Your task to perform on an android device: Look up the book "The Girl on the Train". Image 0: 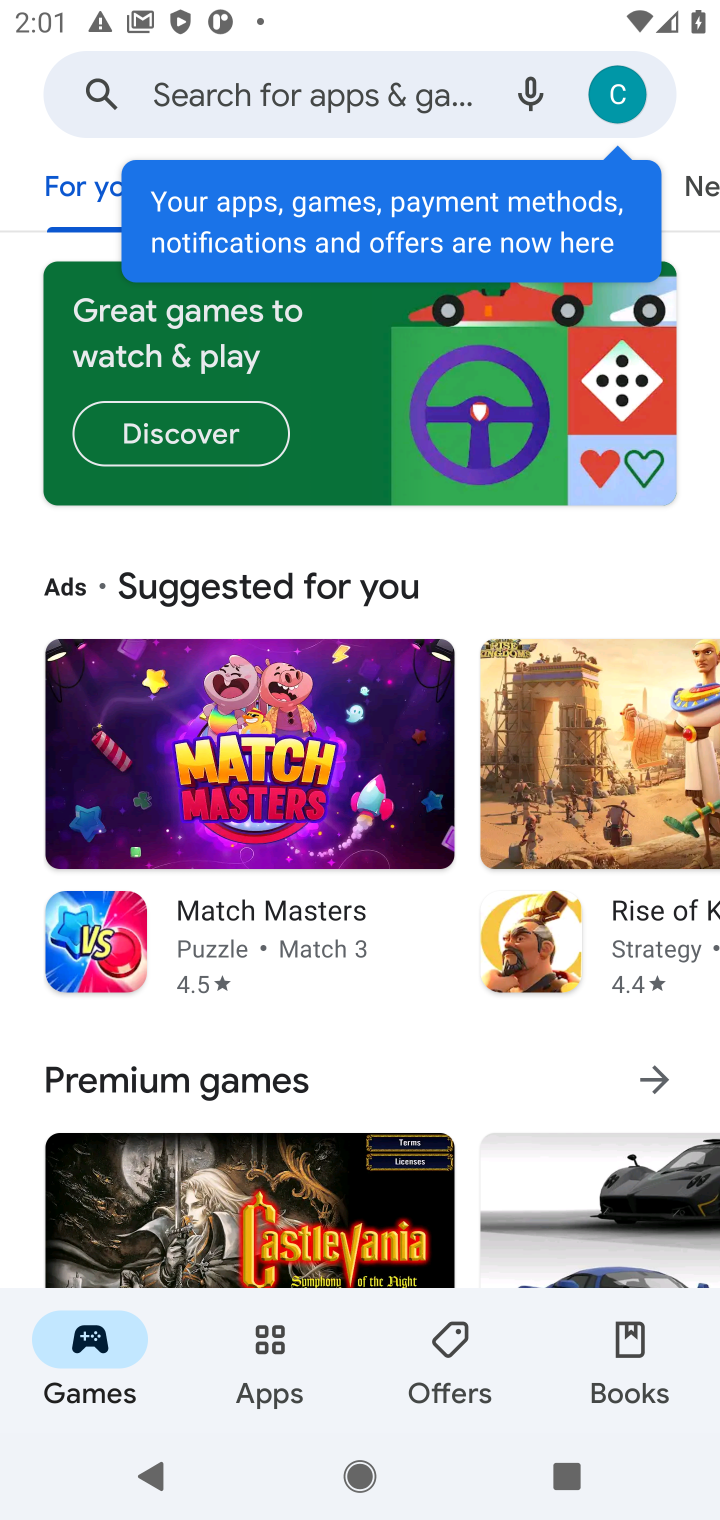
Step 0: press home button
Your task to perform on an android device: Look up the book "The Girl on the Train". Image 1: 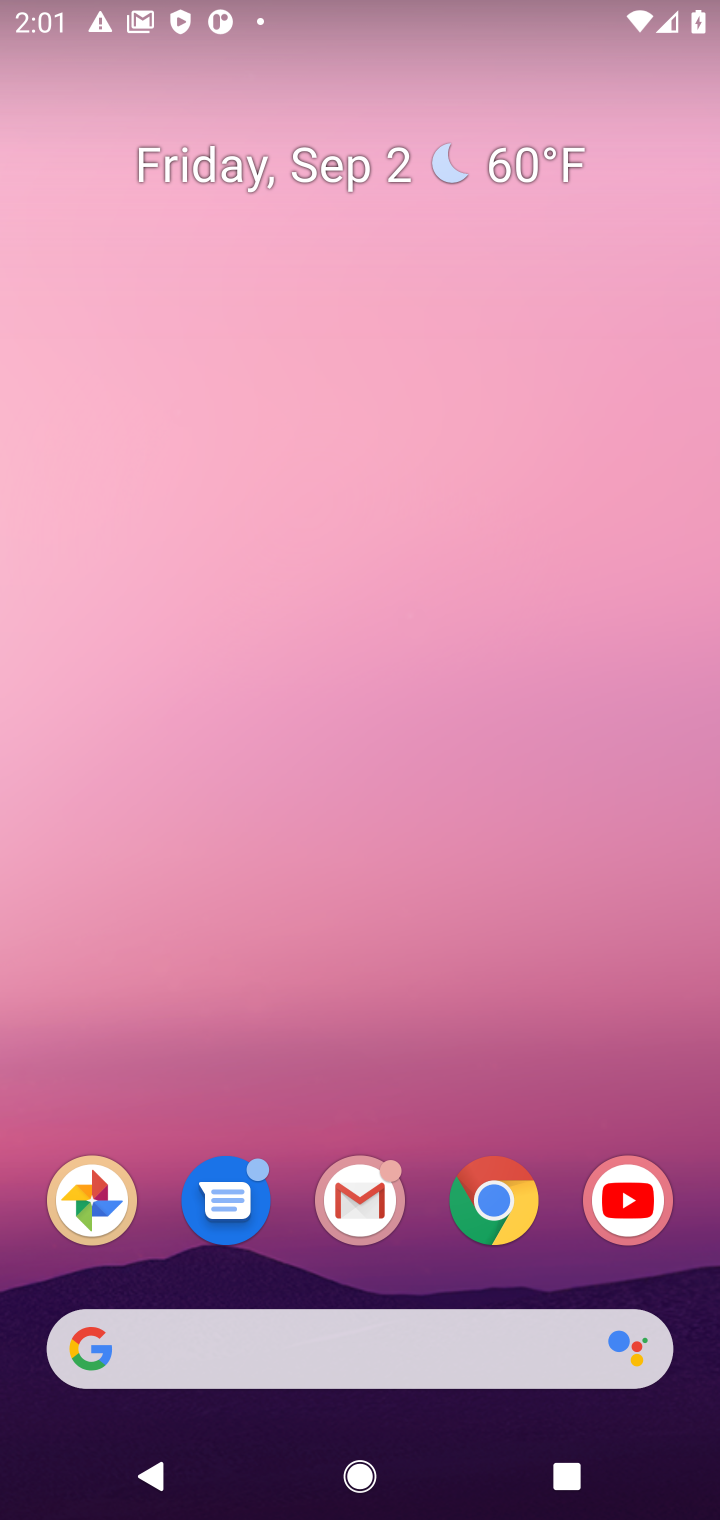
Step 1: click (497, 1201)
Your task to perform on an android device: Look up the book "The Girl on the Train". Image 2: 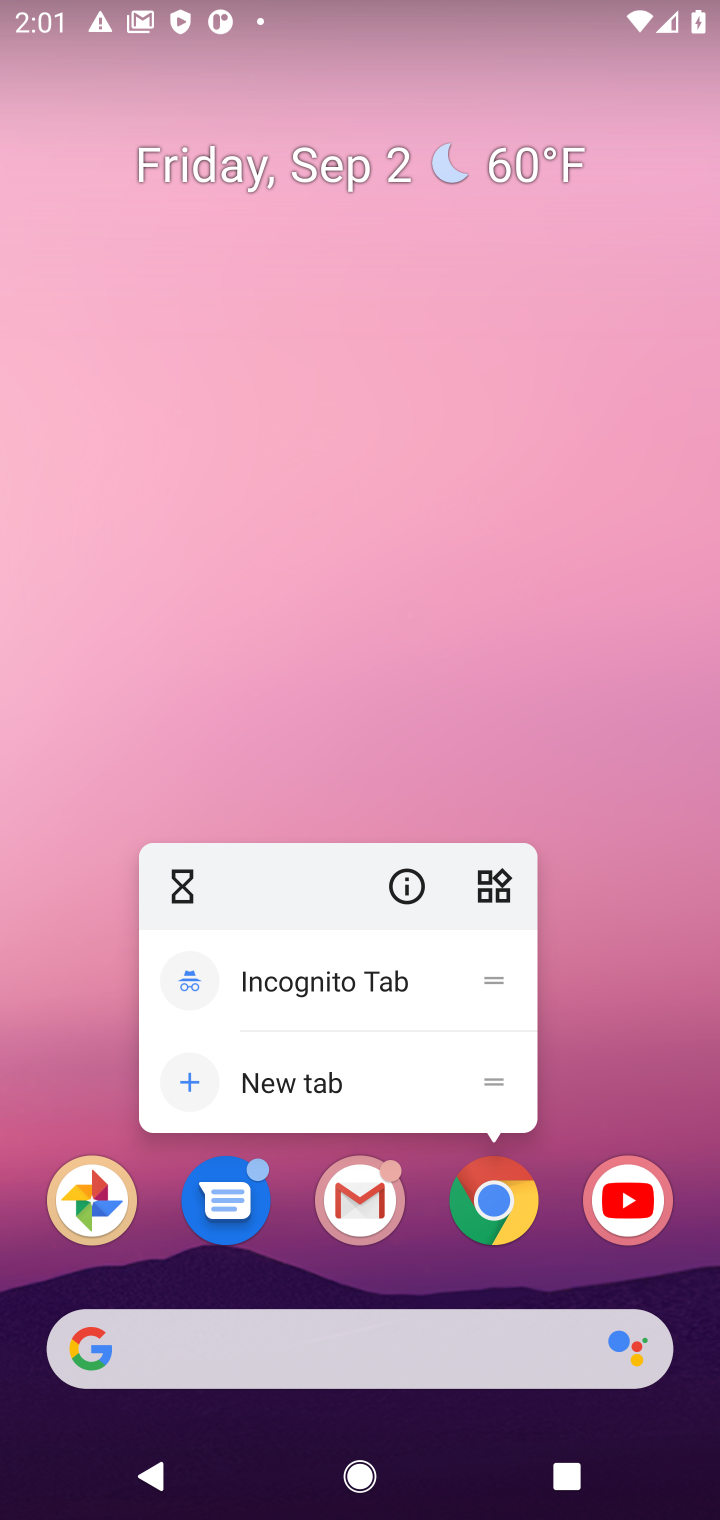
Step 2: click (462, 1248)
Your task to perform on an android device: Look up the book "The Girl on the Train". Image 3: 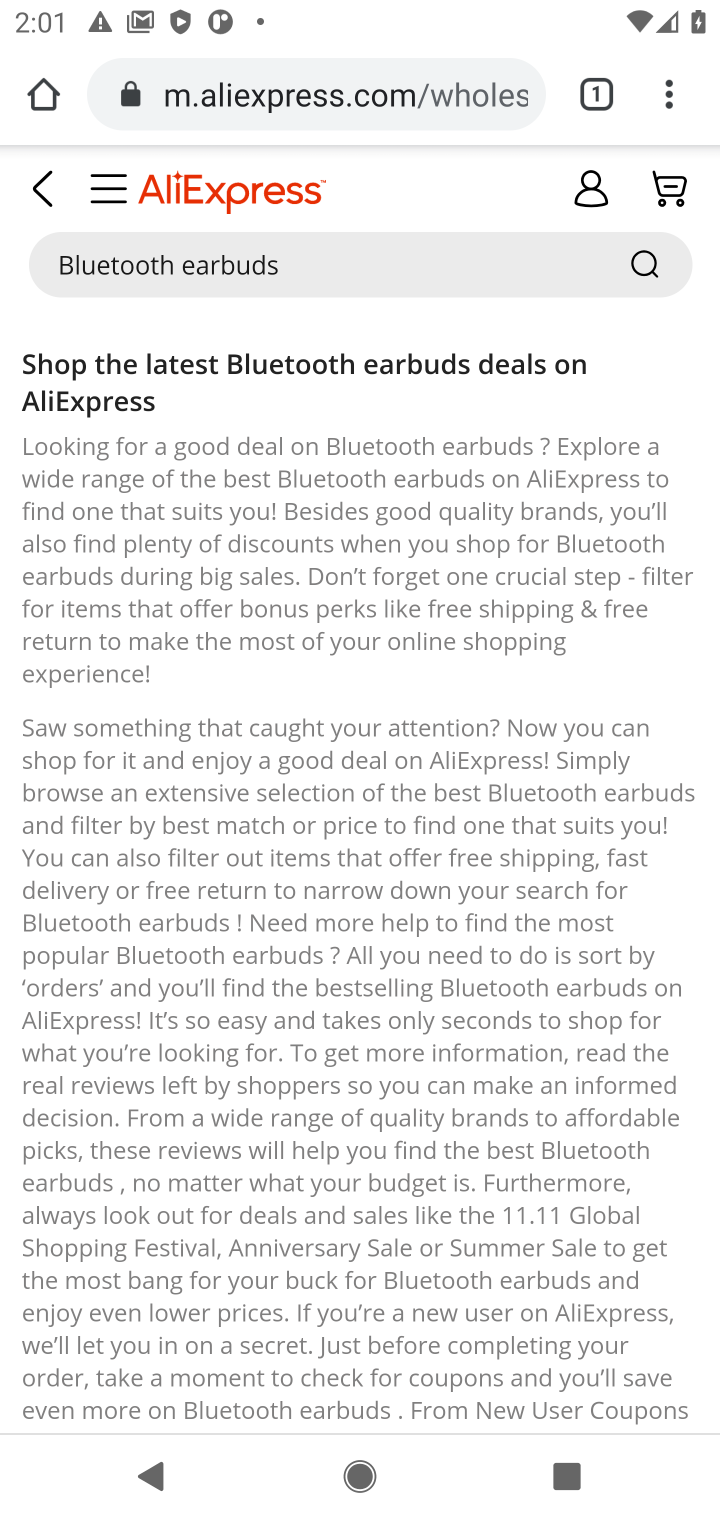
Step 3: click (638, 253)
Your task to perform on an android device: Look up the book "The Girl on the Train". Image 4: 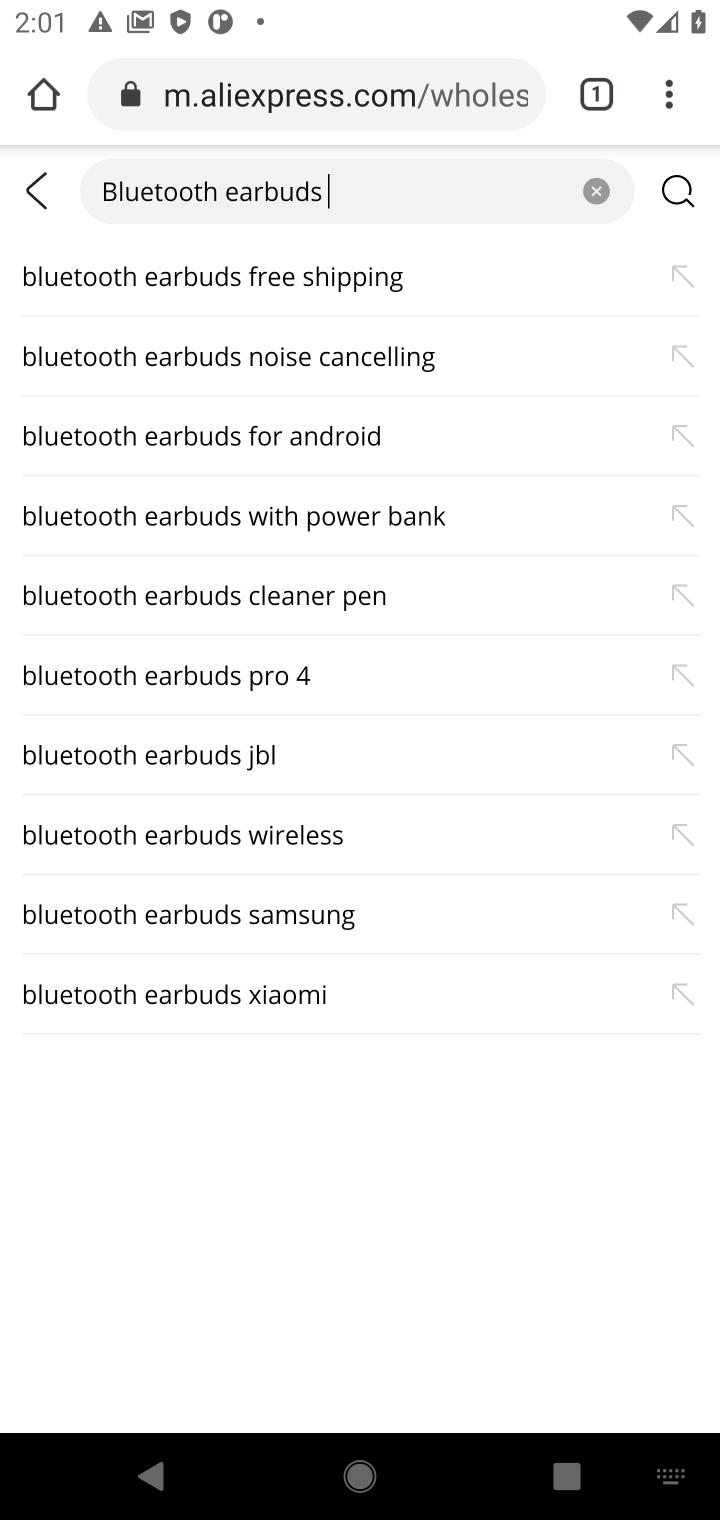
Step 4: click (596, 186)
Your task to perform on an android device: Look up the book "The Girl on the Train". Image 5: 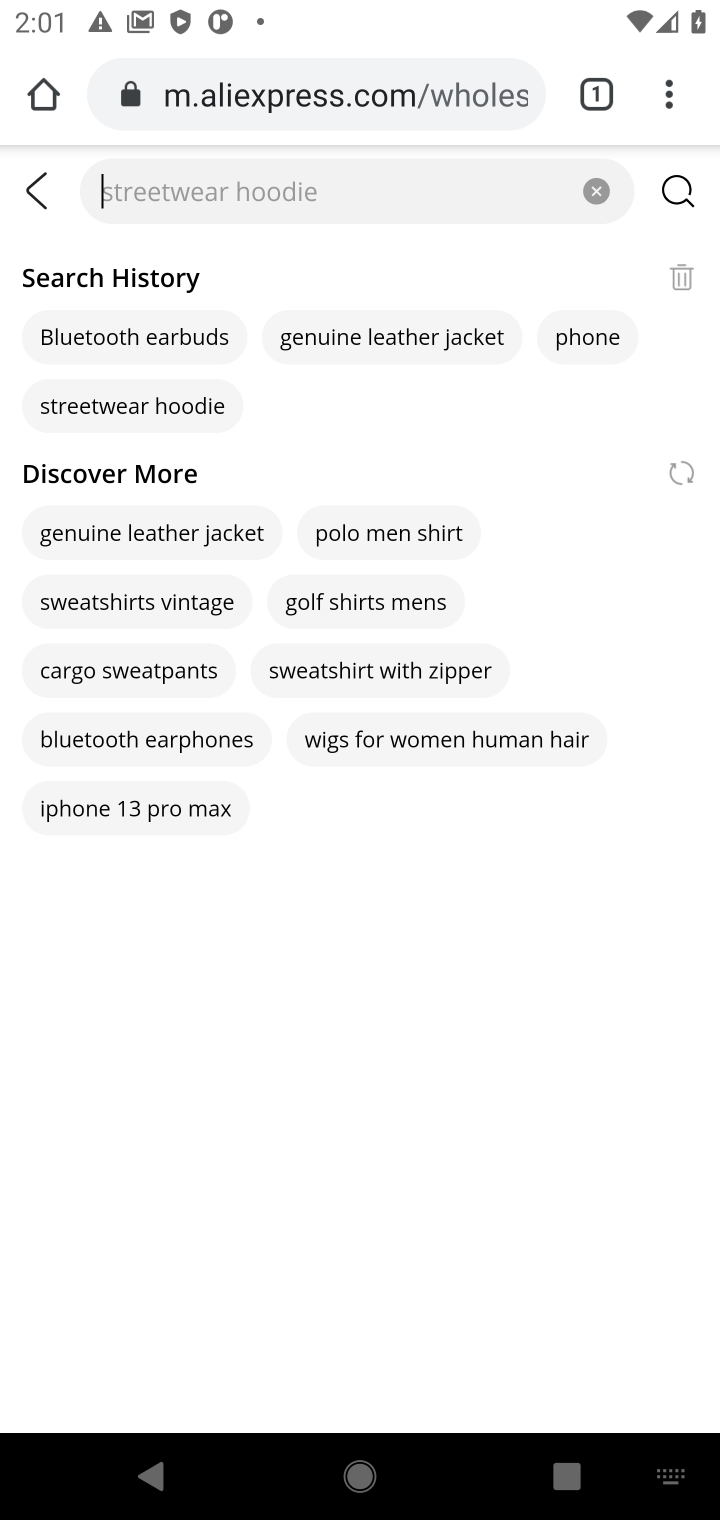
Step 5: click (447, 85)
Your task to perform on an android device: Look up the book "The Girl on the Train". Image 6: 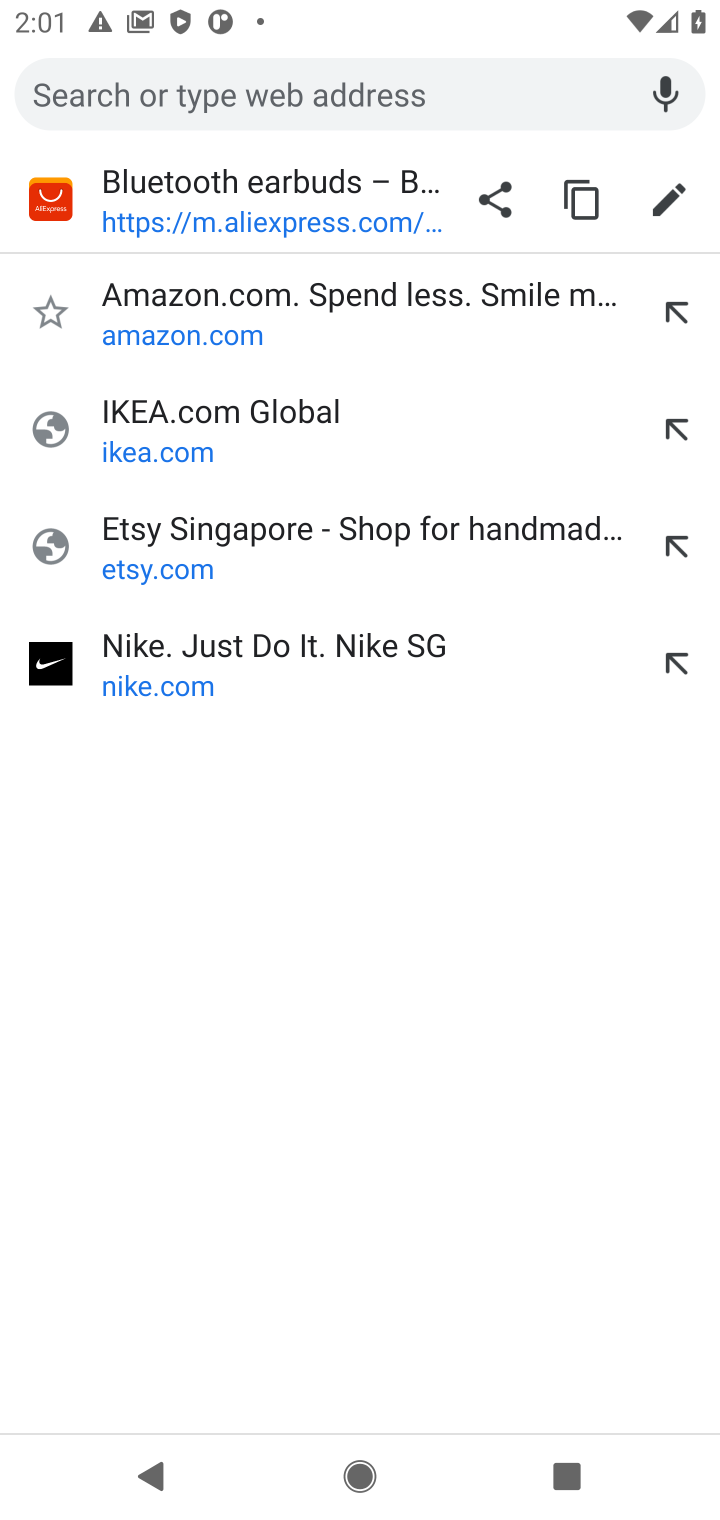
Step 6: click (447, 85)
Your task to perform on an android device: Look up the book "The Girl on the Train". Image 7: 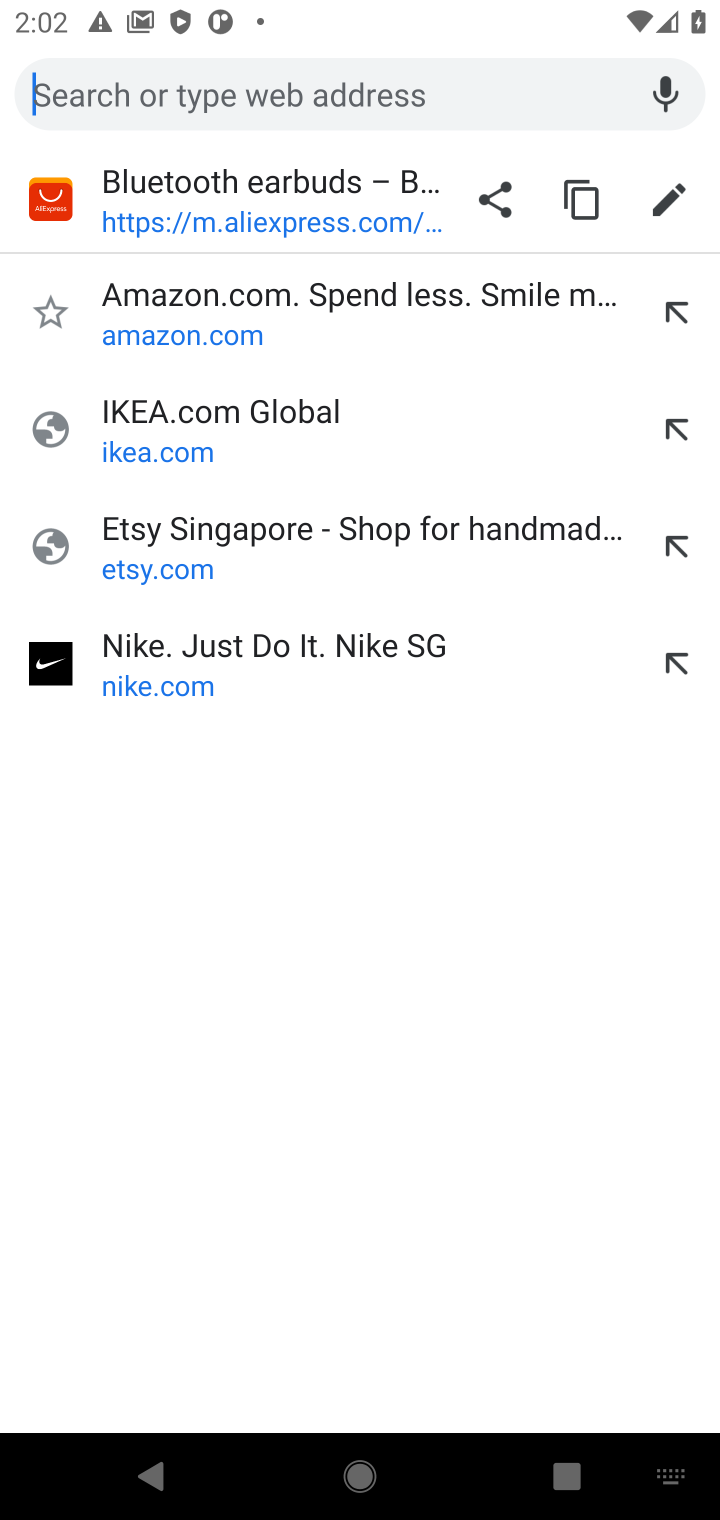
Step 7: type "The Girl on the Train"
Your task to perform on an android device: Look up the book "The Girl on the Train". Image 8: 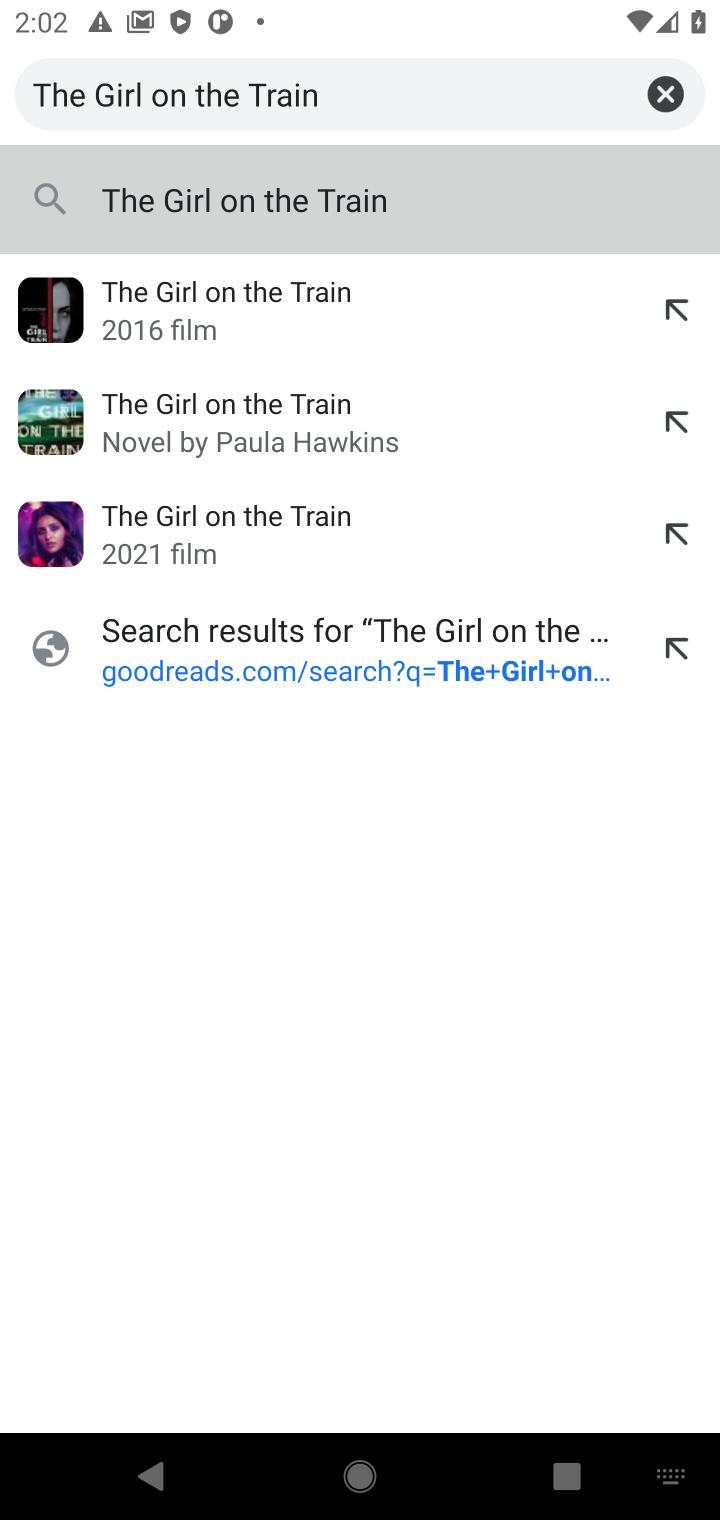
Step 8: press enter
Your task to perform on an android device: Look up the book "The Girl on the Train". Image 9: 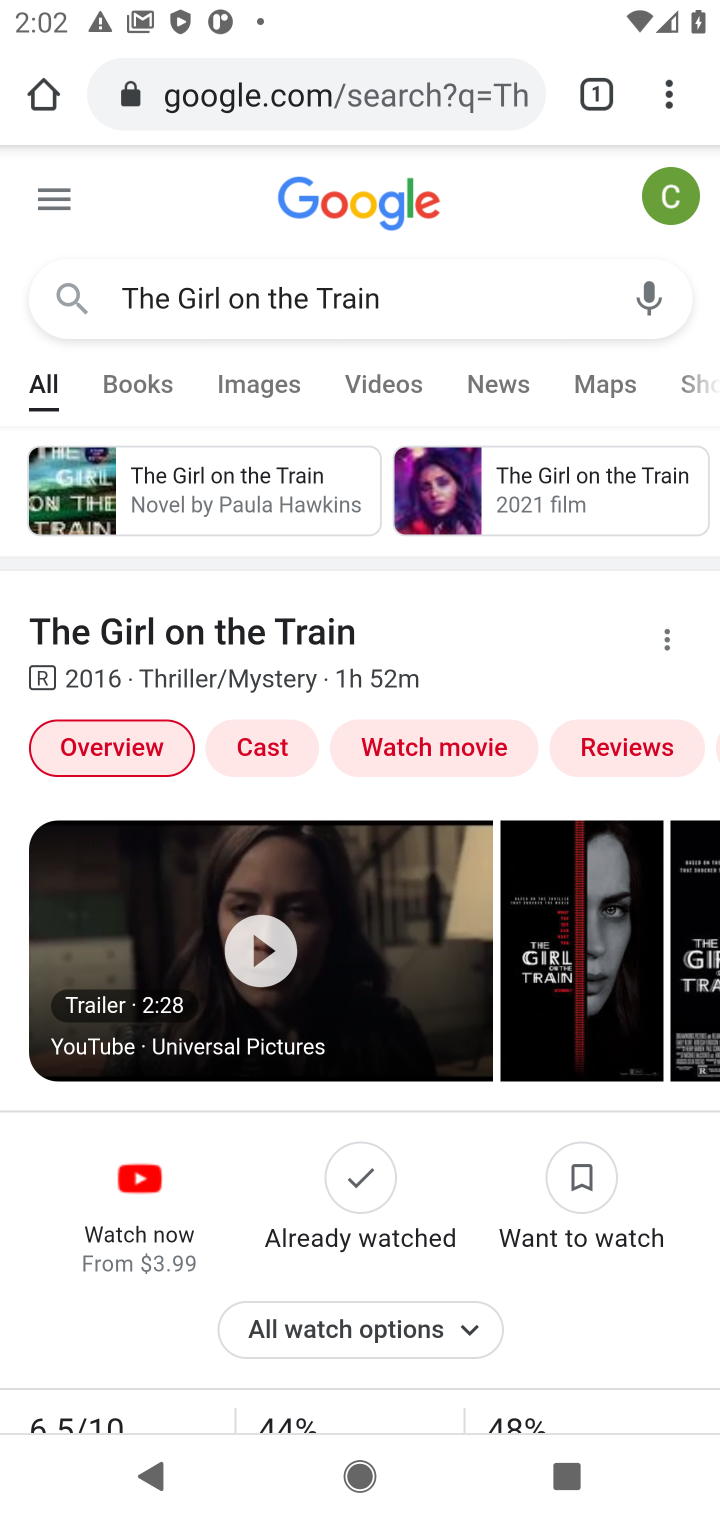
Step 9: task complete